Your task to perform on an android device: Do I have any events this weekend? Image 0: 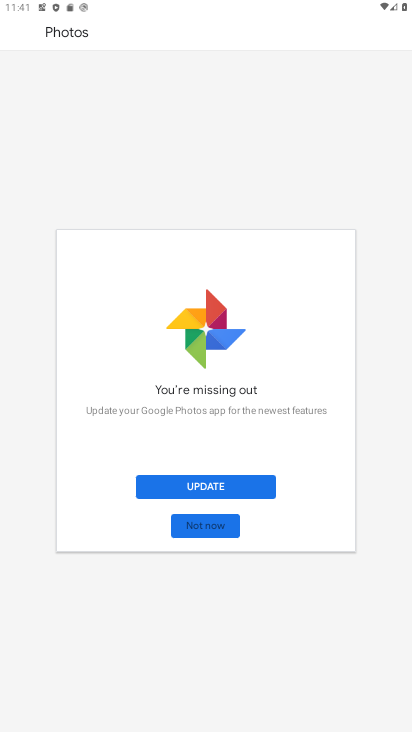
Step 0: press home button
Your task to perform on an android device: Do I have any events this weekend? Image 1: 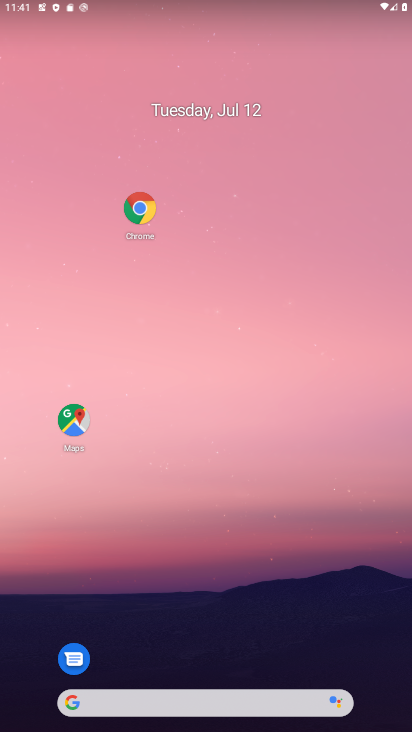
Step 1: drag from (255, 699) to (331, 28)
Your task to perform on an android device: Do I have any events this weekend? Image 2: 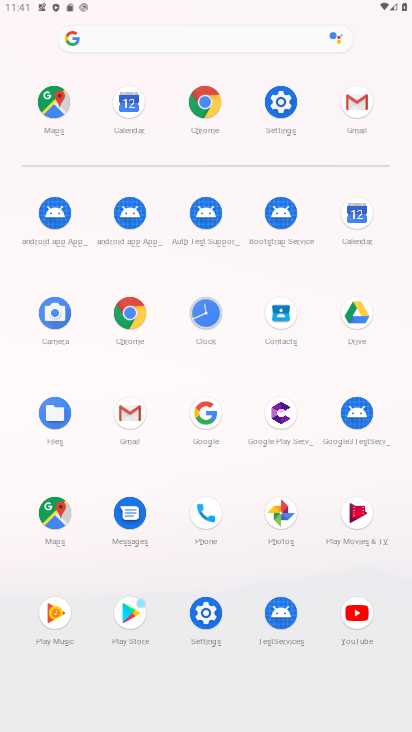
Step 2: click (358, 219)
Your task to perform on an android device: Do I have any events this weekend? Image 3: 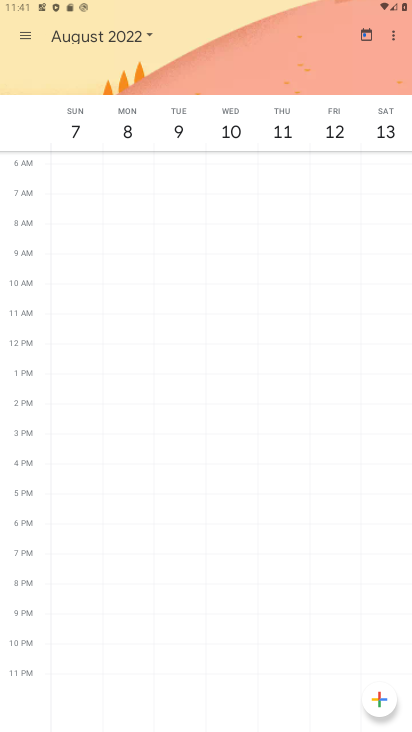
Step 3: click (147, 38)
Your task to perform on an android device: Do I have any events this weekend? Image 4: 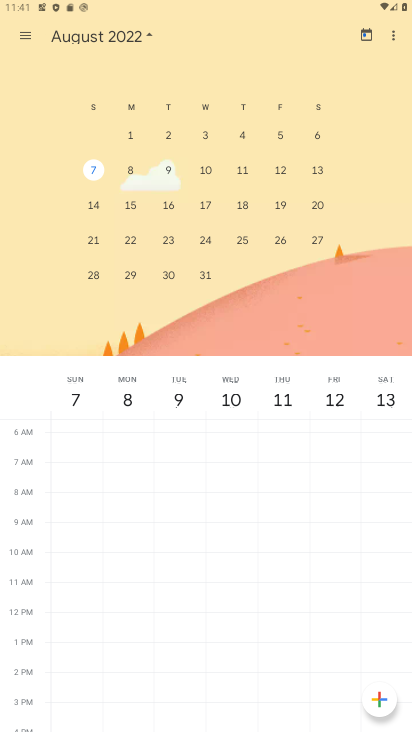
Step 4: drag from (84, 225) to (406, 229)
Your task to perform on an android device: Do I have any events this weekend? Image 5: 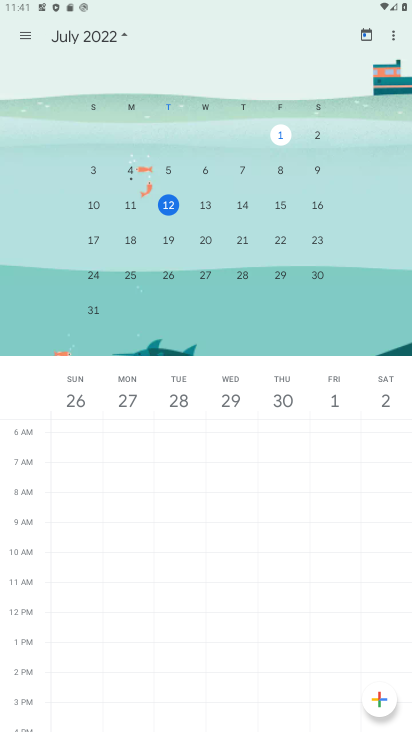
Step 5: click (317, 204)
Your task to perform on an android device: Do I have any events this weekend? Image 6: 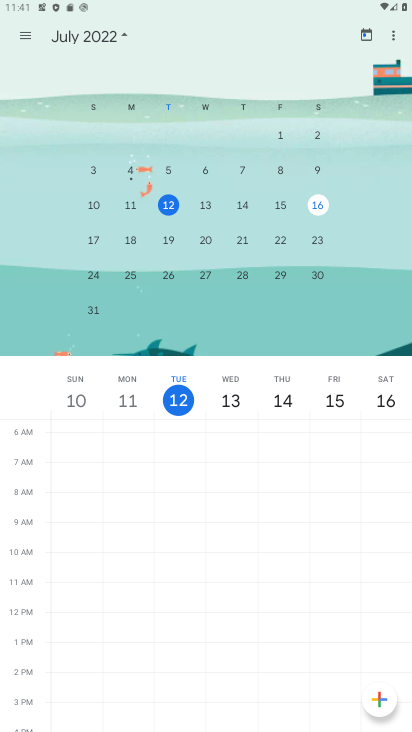
Step 6: task complete